Your task to perform on an android device: Open the map Image 0: 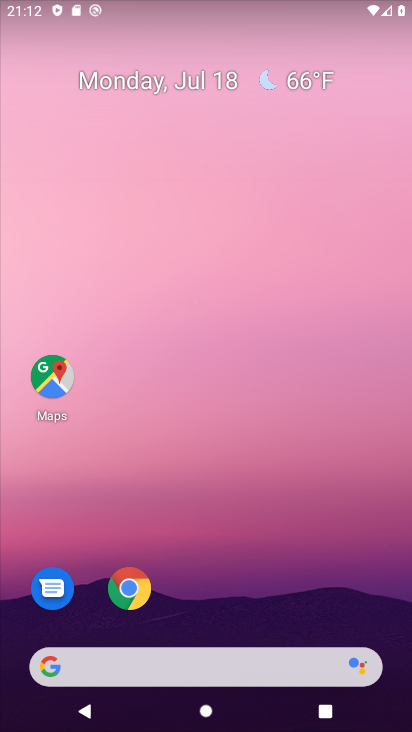
Step 0: press home button
Your task to perform on an android device: Open the map Image 1: 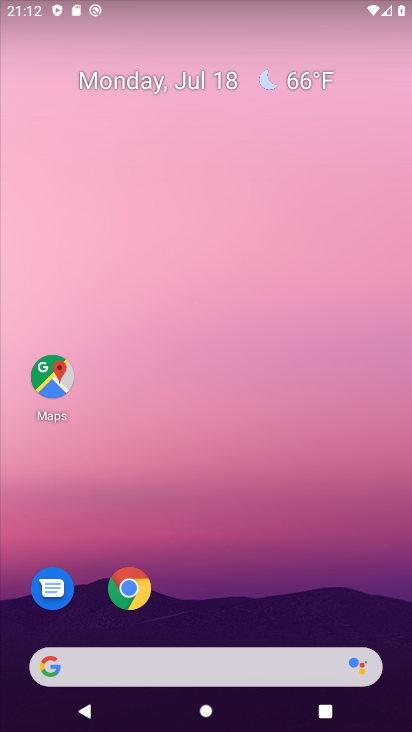
Step 1: click (53, 378)
Your task to perform on an android device: Open the map Image 2: 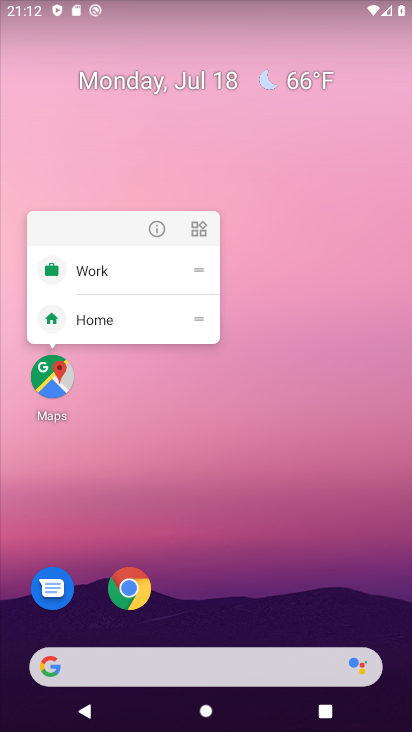
Step 2: click (54, 379)
Your task to perform on an android device: Open the map Image 3: 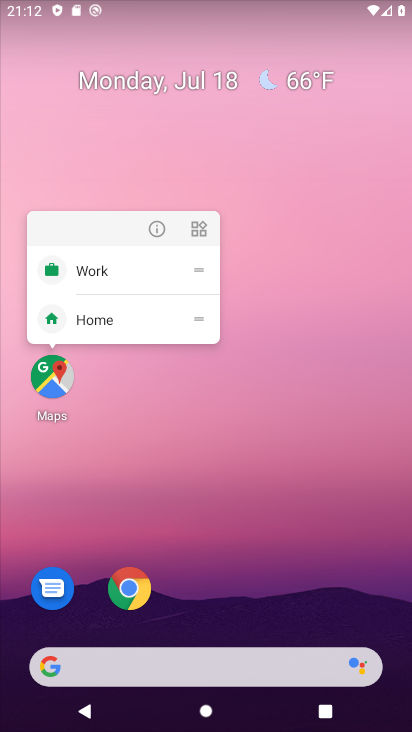
Step 3: click (47, 374)
Your task to perform on an android device: Open the map Image 4: 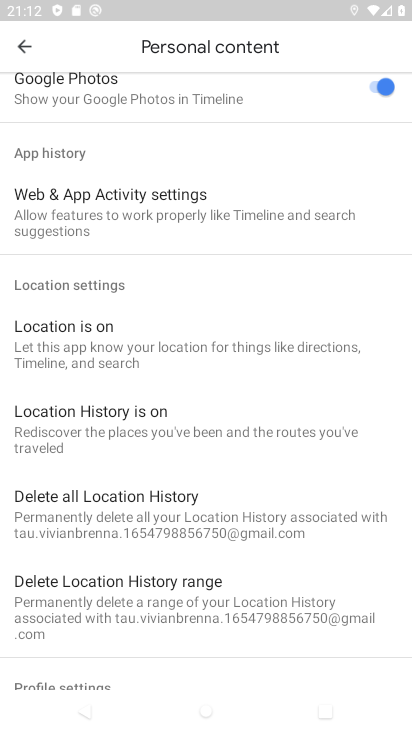
Step 4: click (23, 36)
Your task to perform on an android device: Open the map Image 5: 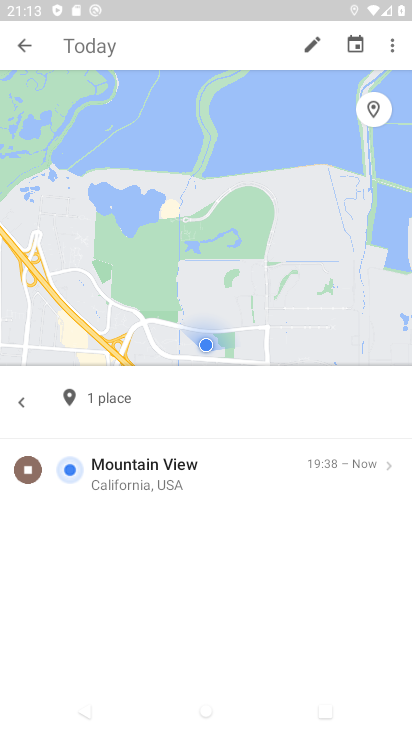
Step 5: click (27, 45)
Your task to perform on an android device: Open the map Image 6: 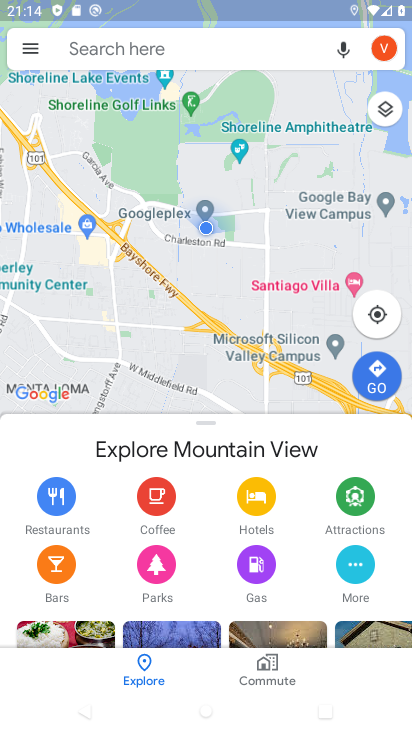
Step 6: task complete